Your task to perform on an android device: How far is the moon? Image 0: 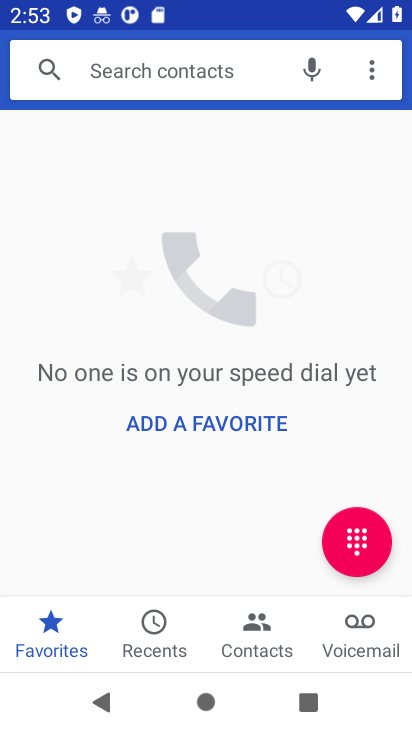
Step 0: press home button
Your task to perform on an android device: How far is the moon? Image 1: 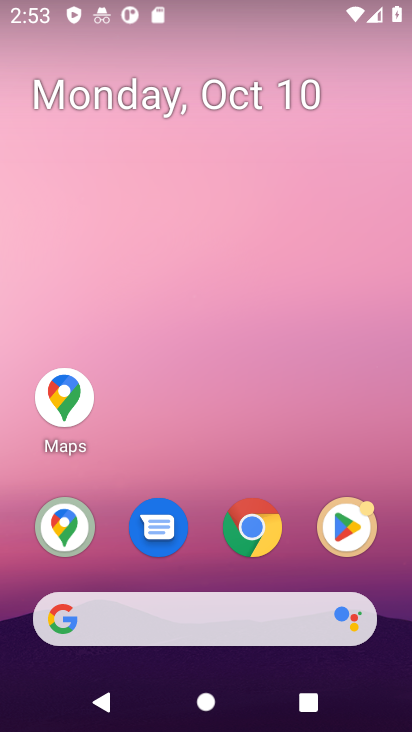
Step 1: click (251, 525)
Your task to perform on an android device: How far is the moon? Image 2: 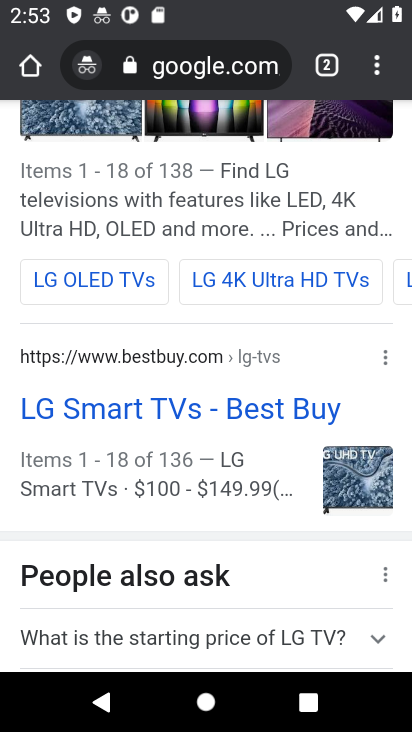
Step 2: click (210, 56)
Your task to perform on an android device: How far is the moon? Image 3: 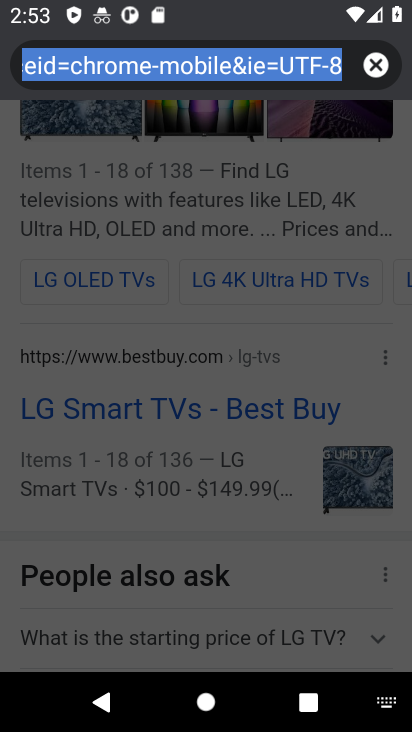
Step 3: click (376, 67)
Your task to perform on an android device: How far is the moon? Image 4: 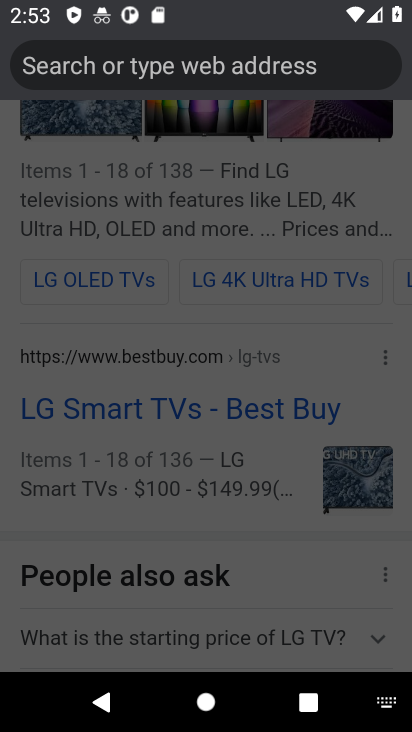
Step 4: type "How far is the moon"
Your task to perform on an android device: How far is the moon? Image 5: 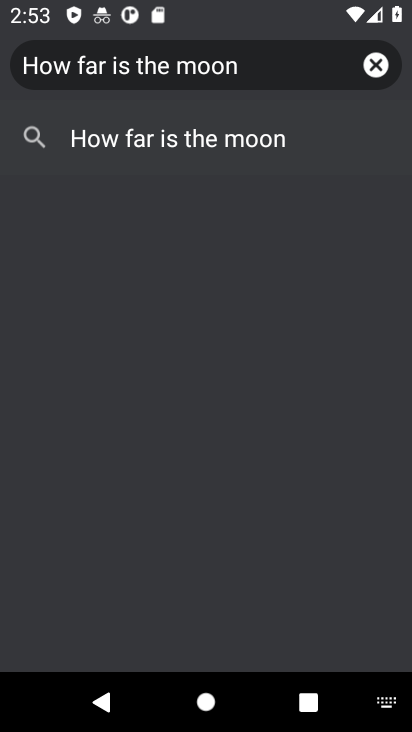
Step 5: click (204, 146)
Your task to perform on an android device: How far is the moon? Image 6: 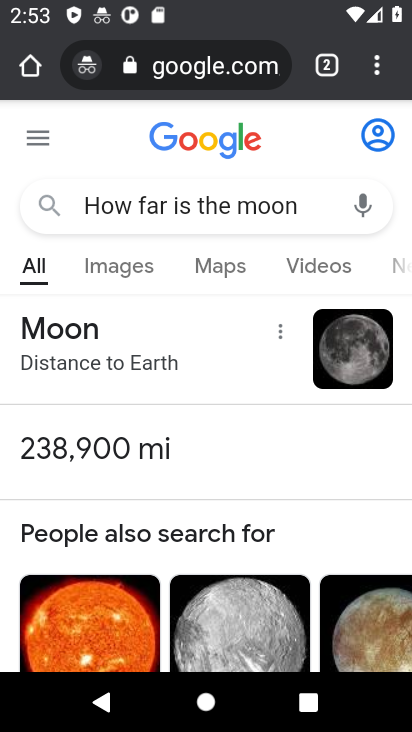
Step 6: task complete